Your task to perform on an android device: What's the weather going to be tomorrow? Image 0: 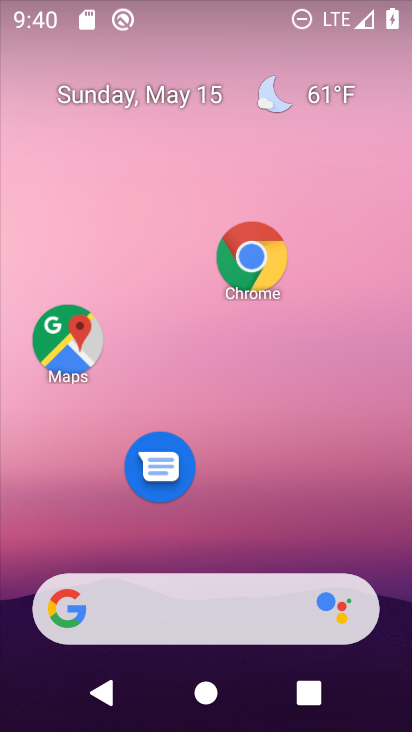
Step 0: click (323, 101)
Your task to perform on an android device: What's the weather going to be tomorrow? Image 1: 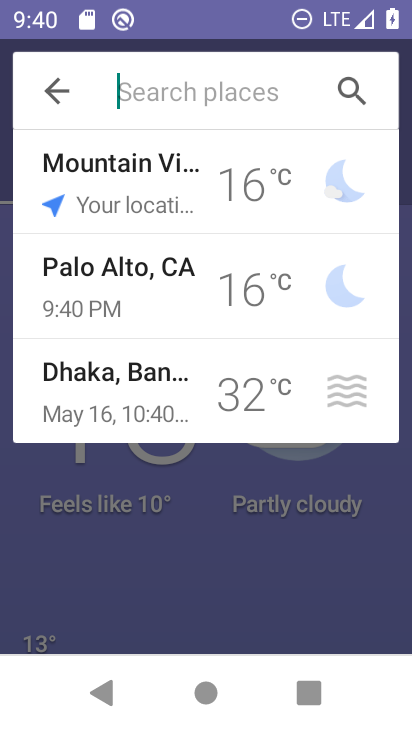
Step 1: click (169, 580)
Your task to perform on an android device: What's the weather going to be tomorrow? Image 2: 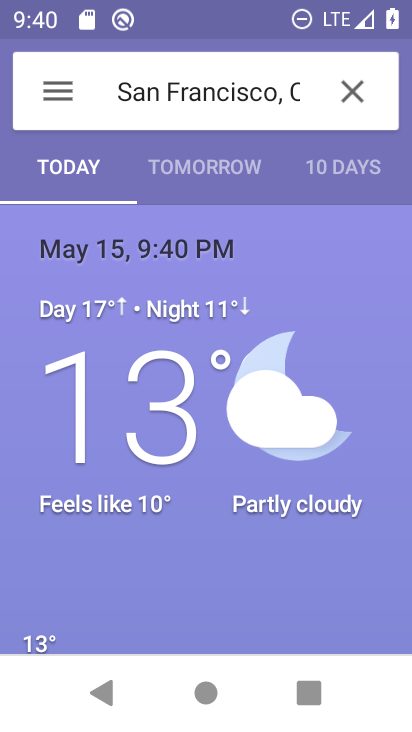
Step 2: click (225, 168)
Your task to perform on an android device: What's the weather going to be tomorrow? Image 3: 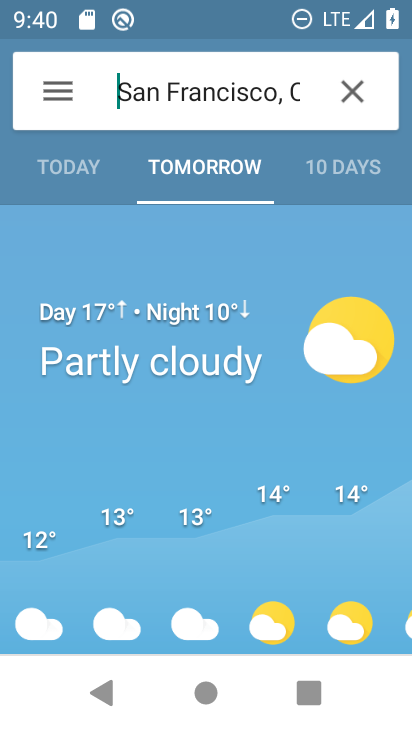
Step 3: task complete